Your task to perform on an android device: Open the phone app and click the voicemail tab. Image 0: 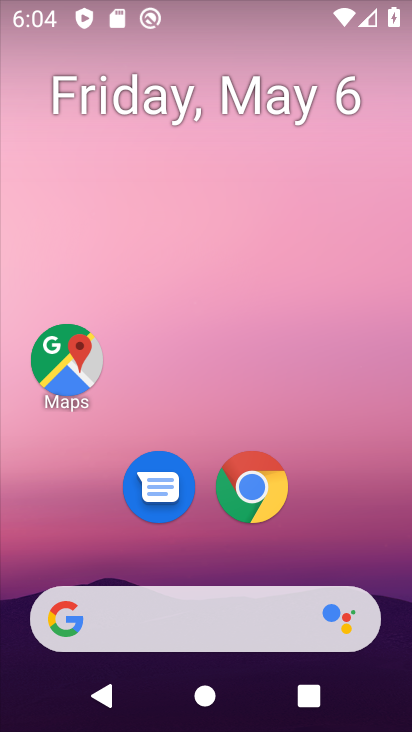
Step 0: drag from (352, 555) to (374, 108)
Your task to perform on an android device: Open the phone app and click the voicemail tab. Image 1: 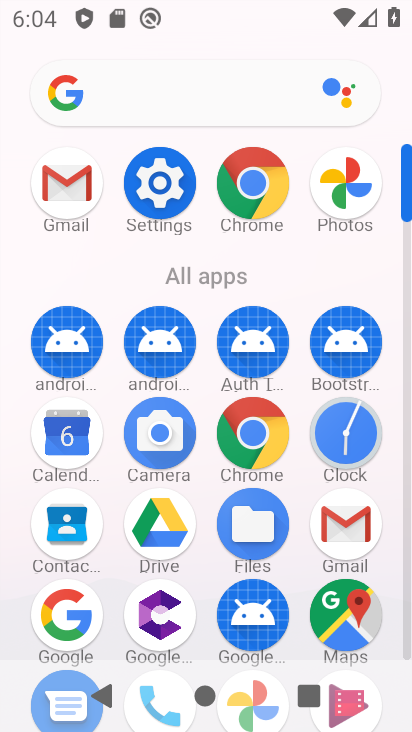
Step 1: drag from (291, 323) to (339, 137)
Your task to perform on an android device: Open the phone app and click the voicemail tab. Image 2: 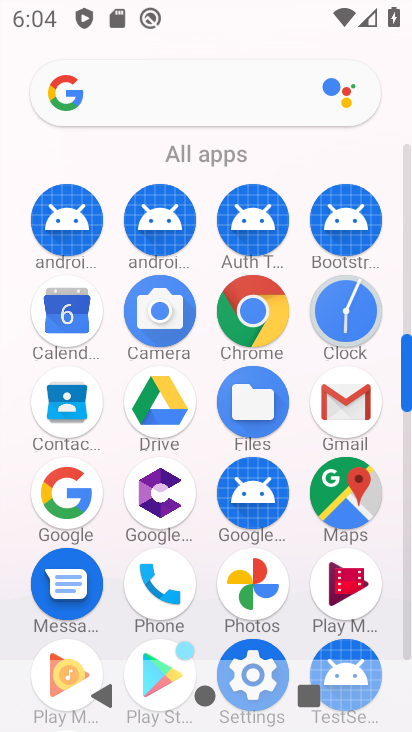
Step 2: click (154, 575)
Your task to perform on an android device: Open the phone app and click the voicemail tab. Image 3: 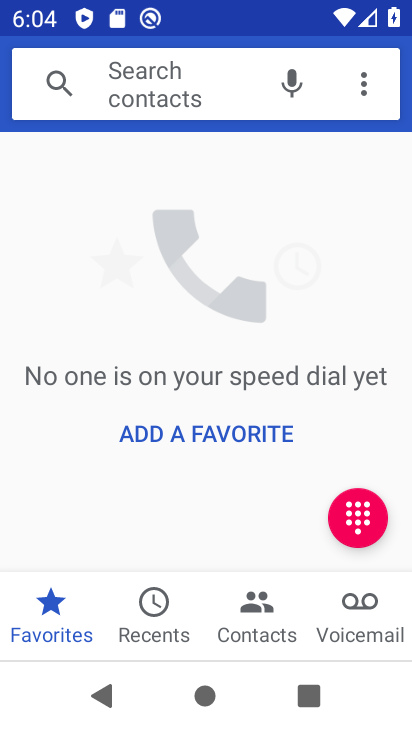
Step 3: click (346, 622)
Your task to perform on an android device: Open the phone app and click the voicemail tab. Image 4: 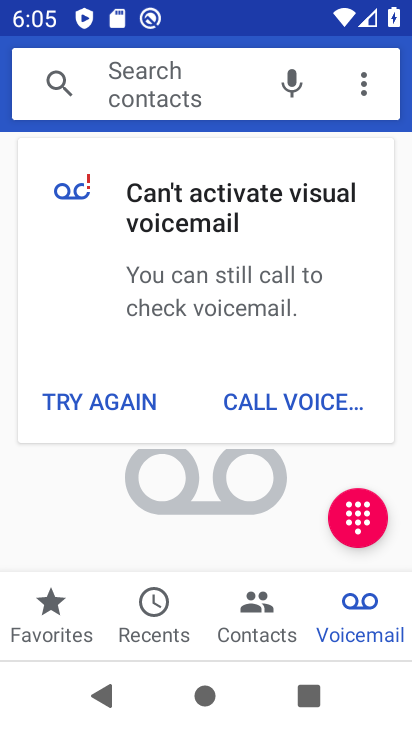
Step 4: task complete